Your task to perform on an android device: Search for seafood restaurants on Google Maps Image 0: 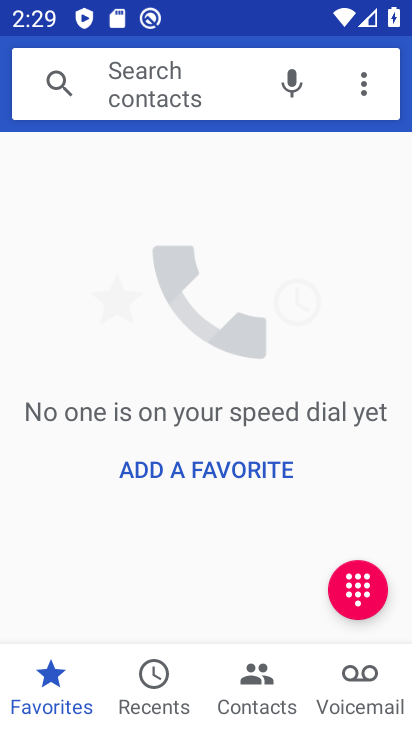
Step 0: press home button
Your task to perform on an android device: Search for seafood restaurants on Google Maps Image 1: 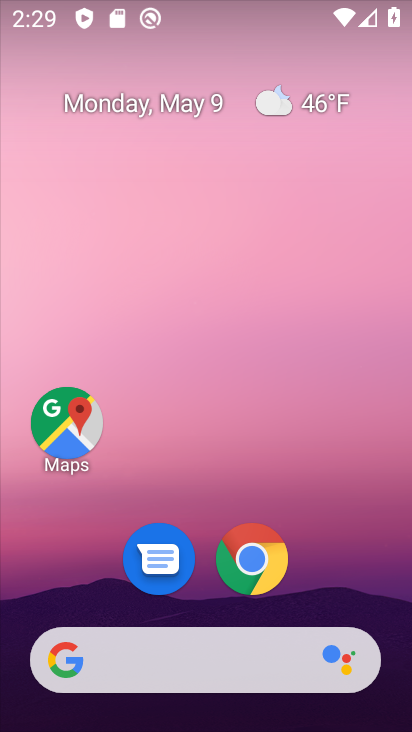
Step 1: click (77, 424)
Your task to perform on an android device: Search for seafood restaurants on Google Maps Image 2: 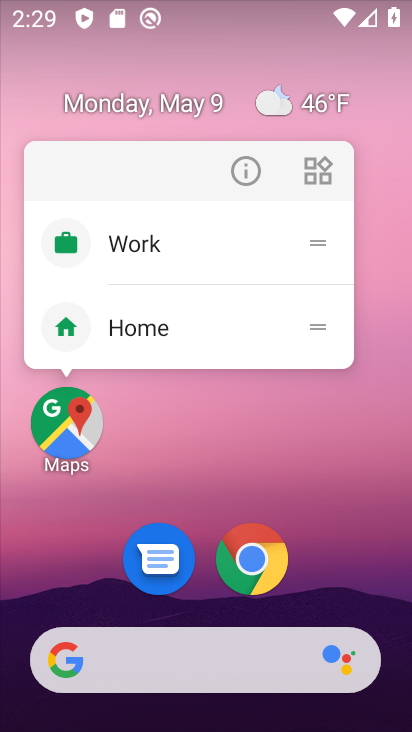
Step 2: click (77, 424)
Your task to perform on an android device: Search for seafood restaurants on Google Maps Image 3: 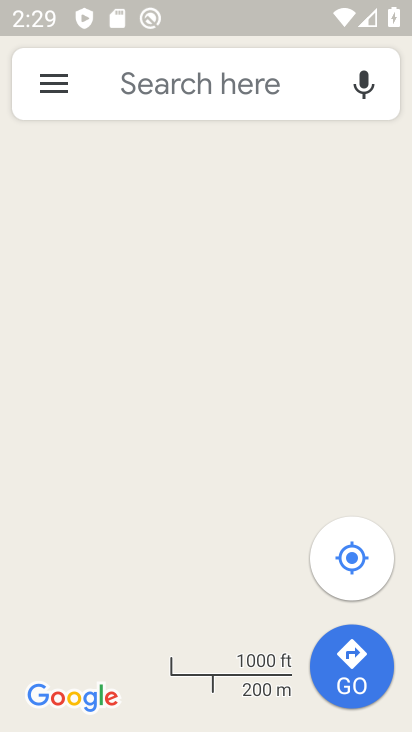
Step 3: click (199, 96)
Your task to perform on an android device: Search for seafood restaurants on Google Maps Image 4: 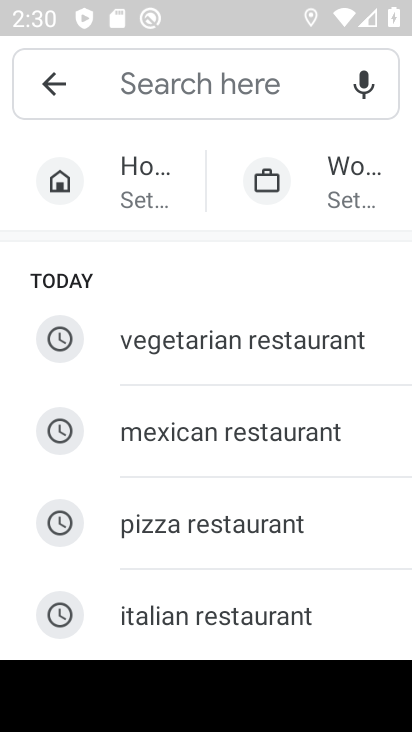
Step 4: drag from (308, 553) to (314, 254)
Your task to perform on an android device: Search for seafood restaurants on Google Maps Image 5: 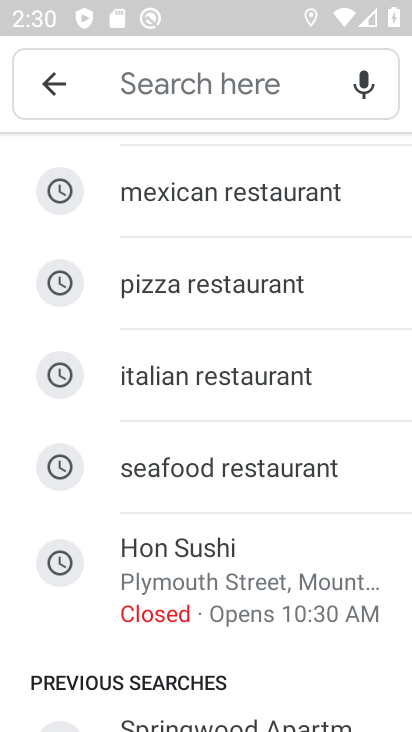
Step 5: click (295, 460)
Your task to perform on an android device: Search for seafood restaurants on Google Maps Image 6: 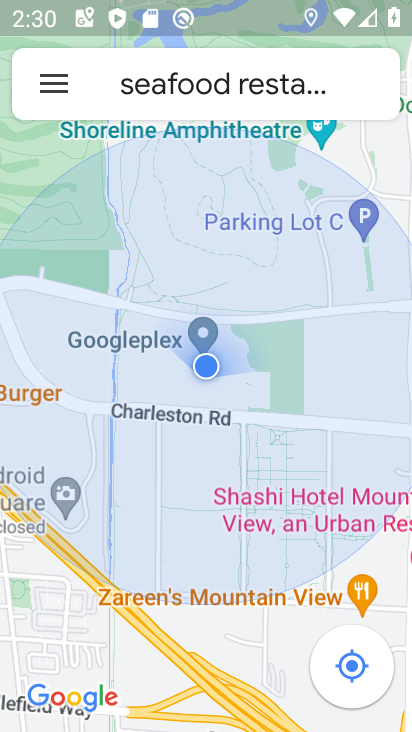
Step 6: task complete